Your task to perform on an android device: change the upload size in google photos Image 0: 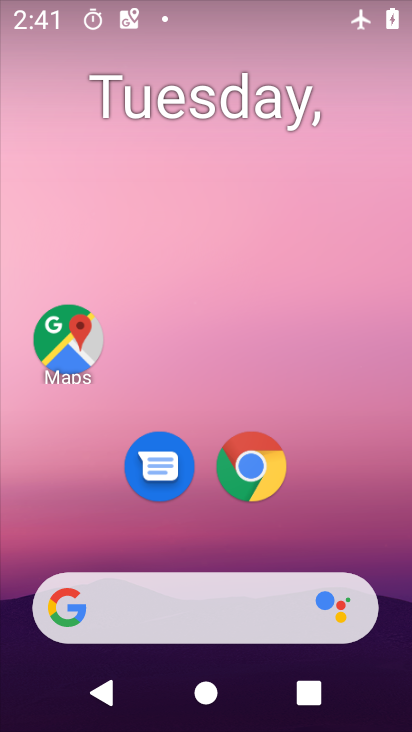
Step 0: drag from (378, 552) to (372, 238)
Your task to perform on an android device: change the upload size in google photos Image 1: 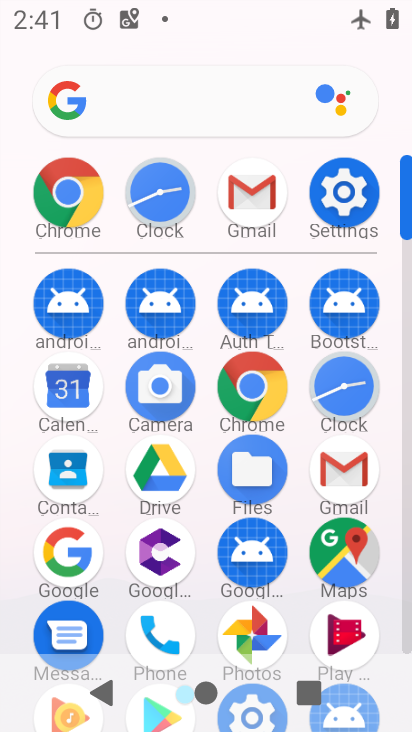
Step 1: drag from (291, 588) to (299, 351)
Your task to perform on an android device: change the upload size in google photos Image 2: 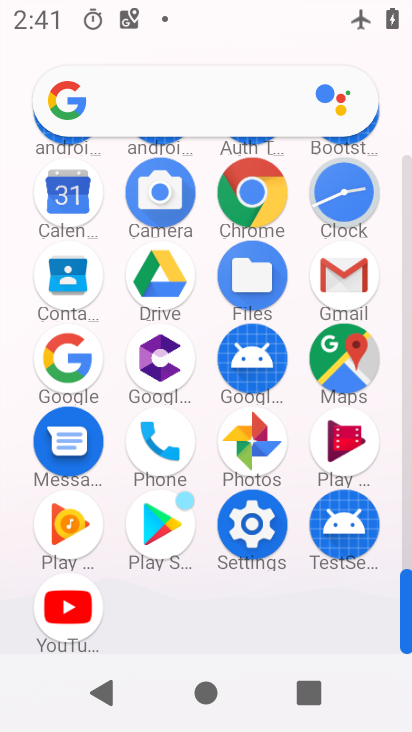
Step 2: click (254, 432)
Your task to perform on an android device: change the upload size in google photos Image 3: 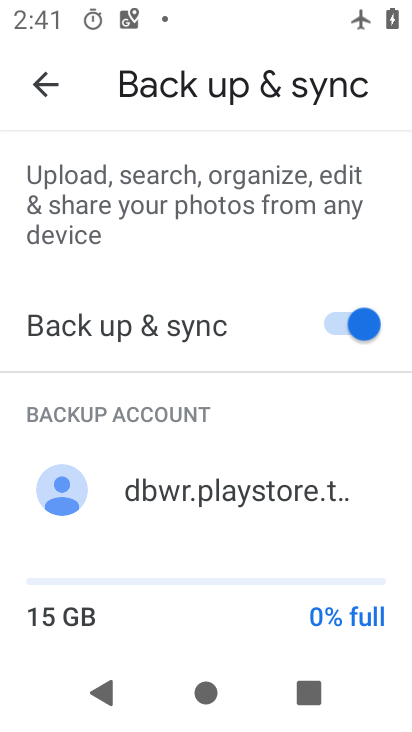
Step 3: drag from (230, 533) to (242, 328)
Your task to perform on an android device: change the upload size in google photos Image 4: 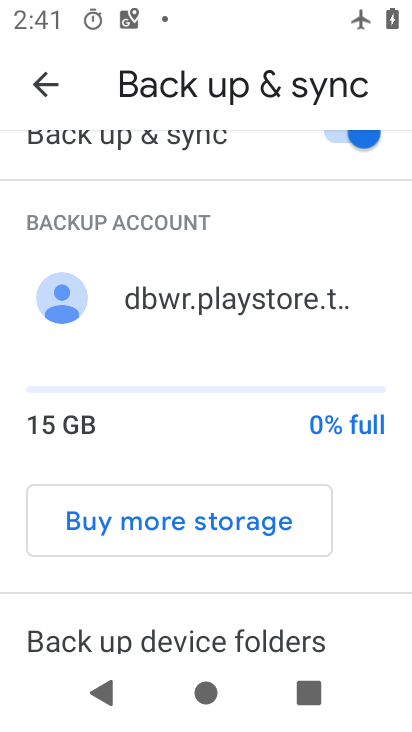
Step 4: drag from (237, 313) to (258, 542)
Your task to perform on an android device: change the upload size in google photos Image 5: 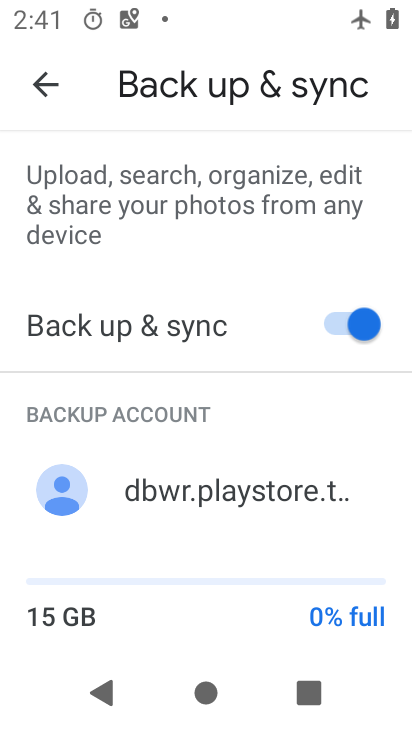
Step 5: drag from (221, 250) to (232, 469)
Your task to perform on an android device: change the upload size in google photos Image 6: 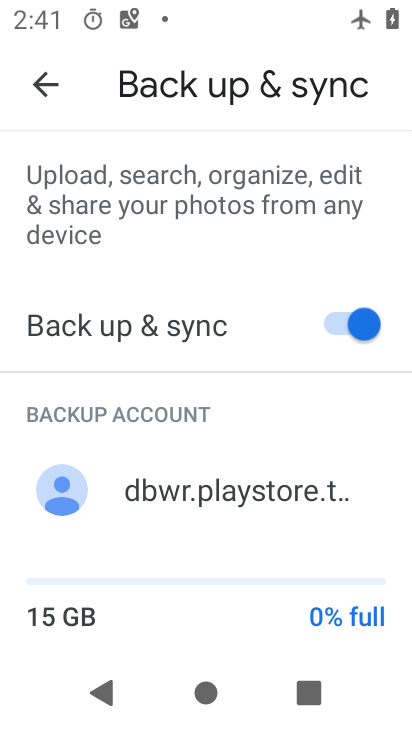
Step 6: drag from (261, 535) to (267, 305)
Your task to perform on an android device: change the upload size in google photos Image 7: 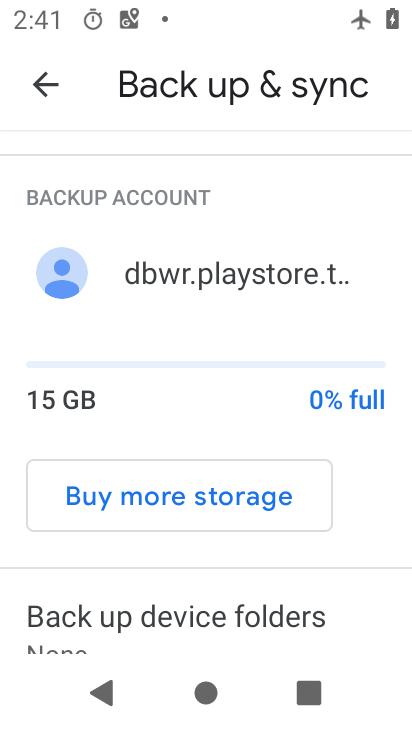
Step 7: drag from (254, 548) to (253, 293)
Your task to perform on an android device: change the upload size in google photos Image 8: 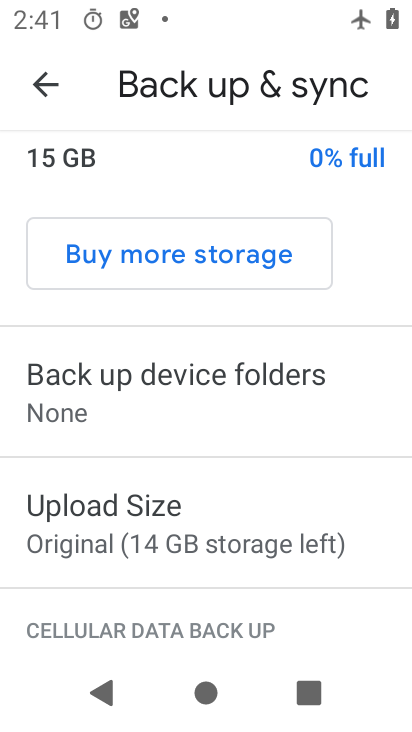
Step 8: click (169, 540)
Your task to perform on an android device: change the upload size in google photos Image 9: 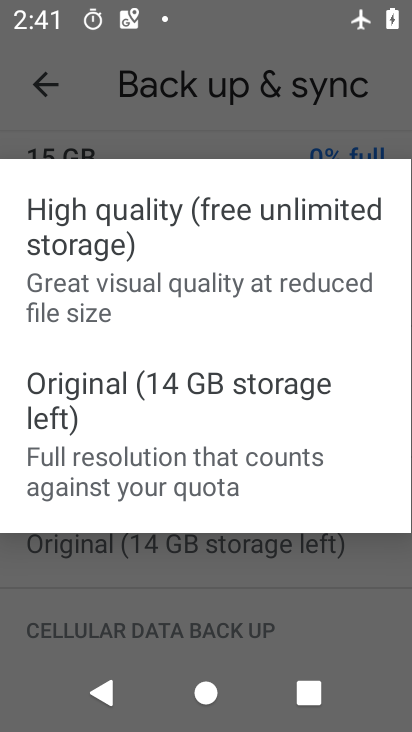
Step 9: click (143, 423)
Your task to perform on an android device: change the upload size in google photos Image 10: 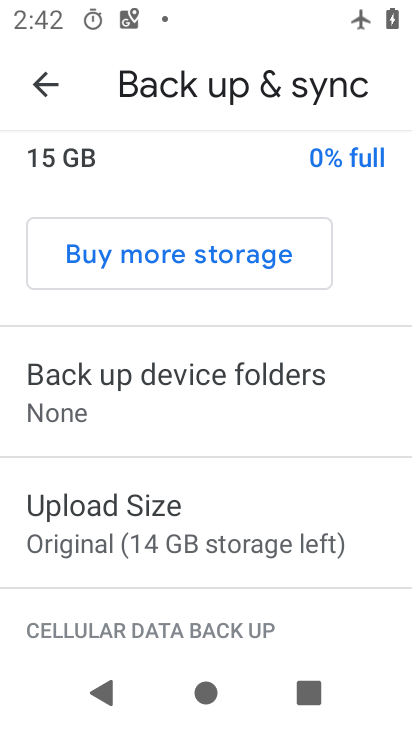
Step 10: task complete